Your task to perform on an android device: Open the calendar and show me this week's events? Image 0: 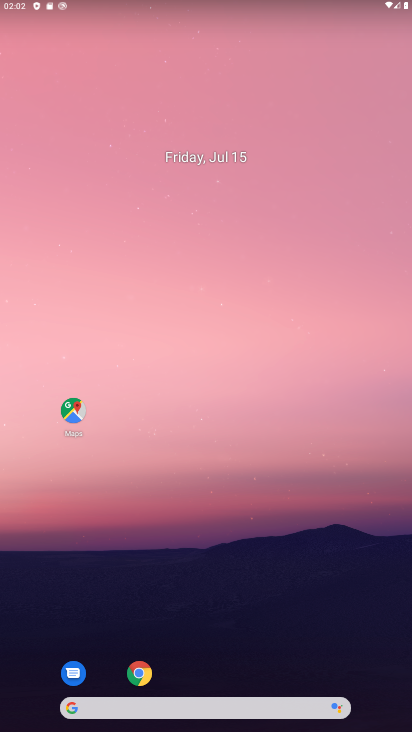
Step 0: drag from (310, 492) to (338, 0)
Your task to perform on an android device: Open the calendar and show me this week's events? Image 1: 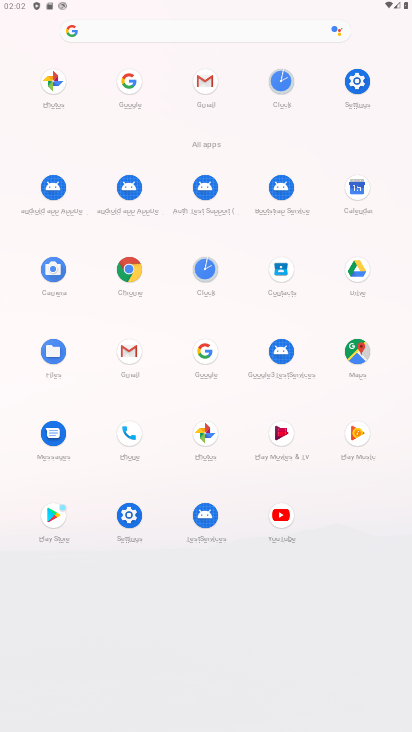
Step 1: click (352, 204)
Your task to perform on an android device: Open the calendar and show me this week's events? Image 2: 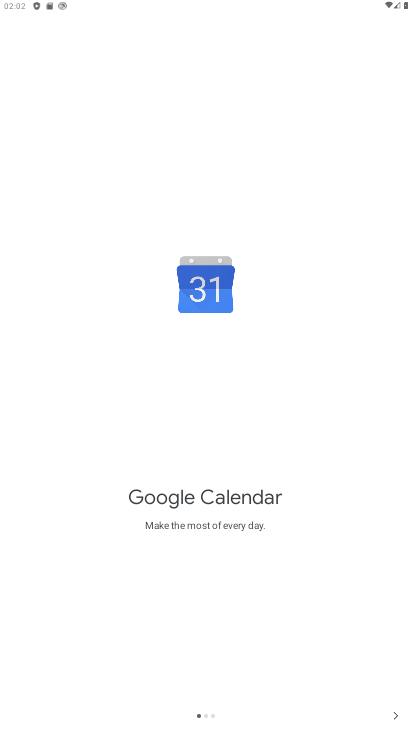
Step 2: click (390, 712)
Your task to perform on an android device: Open the calendar and show me this week's events? Image 3: 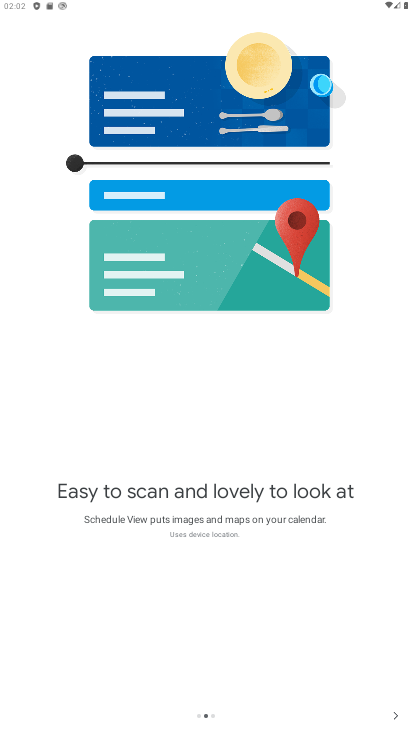
Step 3: click (403, 719)
Your task to perform on an android device: Open the calendar and show me this week's events? Image 4: 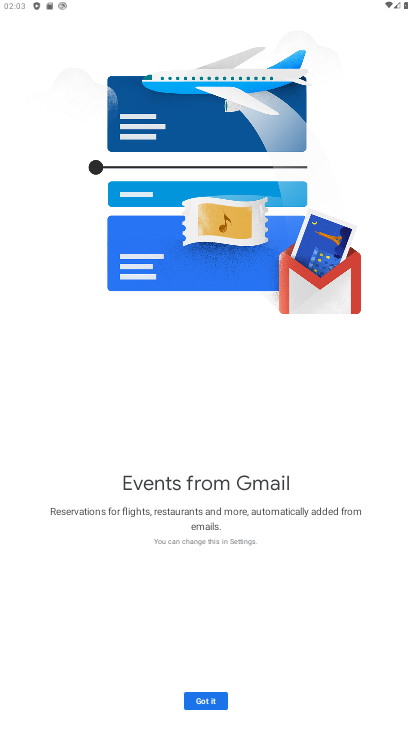
Step 4: click (200, 705)
Your task to perform on an android device: Open the calendar and show me this week's events? Image 5: 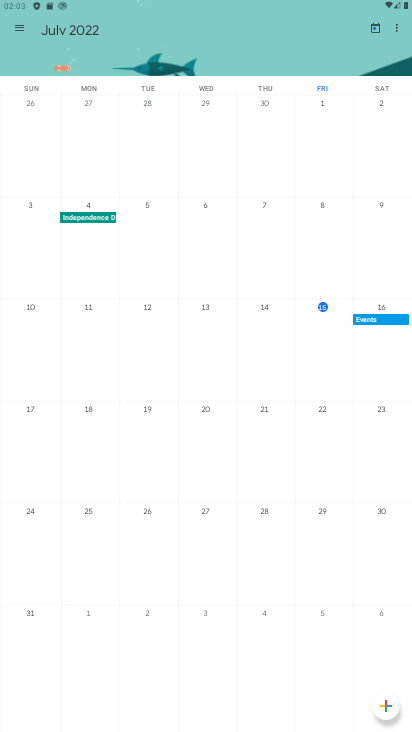
Step 5: task complete